Your task to perform on an android device: Set the phone to "Do not disturb". Image 0: 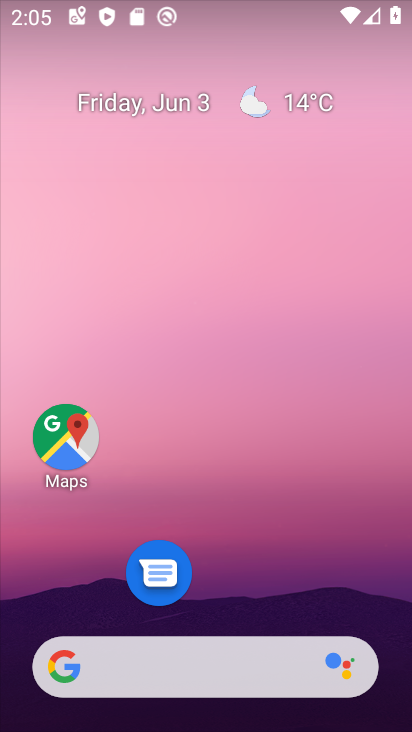
Step 0: drag from (184, 659) to (226, 86)
Your task to perform on an android device: Set the phone to "Do not disturb". Image 1: 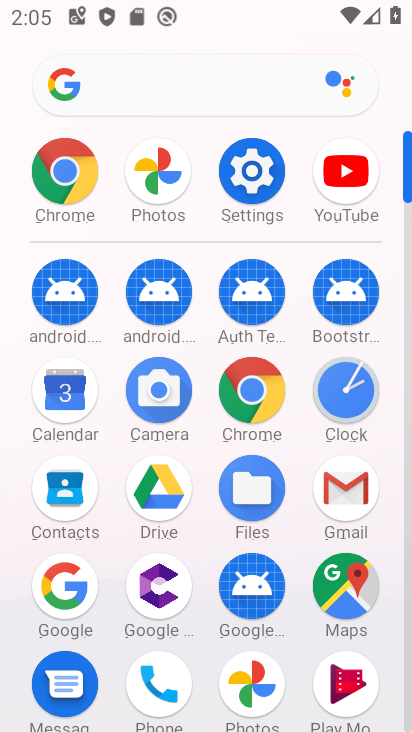
Step 1: click (239, 163)
Your task to perform on an android device: Set the phone to "Do not disturb". Image 2: 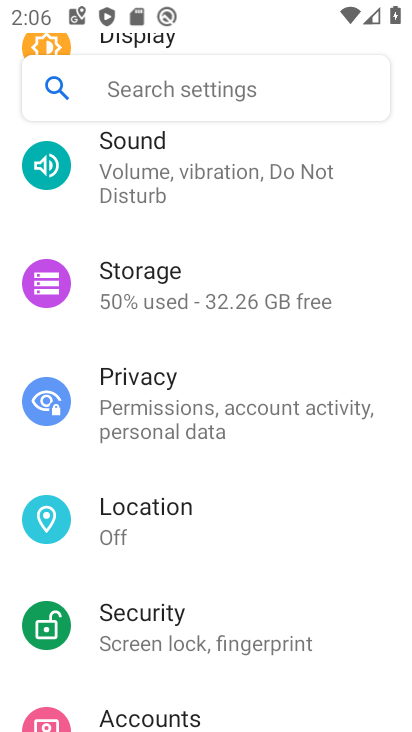
Step 2: click (178, 188)
Your task to perform on an android device: Set the phone to "Do not disturb". Image 3: 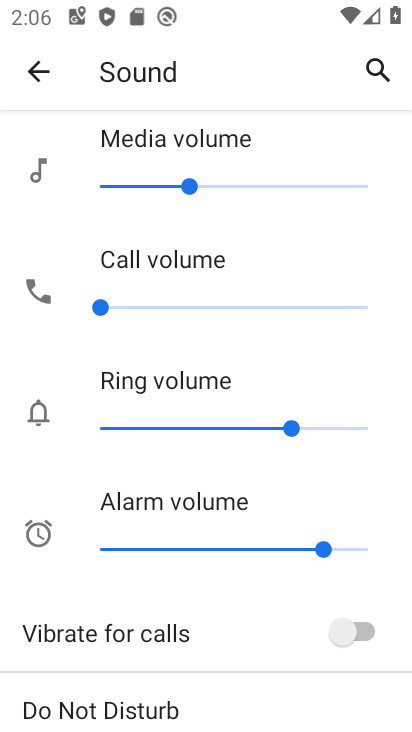
Step 3: drag from (144, 601) to (177, 232)
Your task to perform on an android device: Set the phone to "Do not disturb". Image 4: 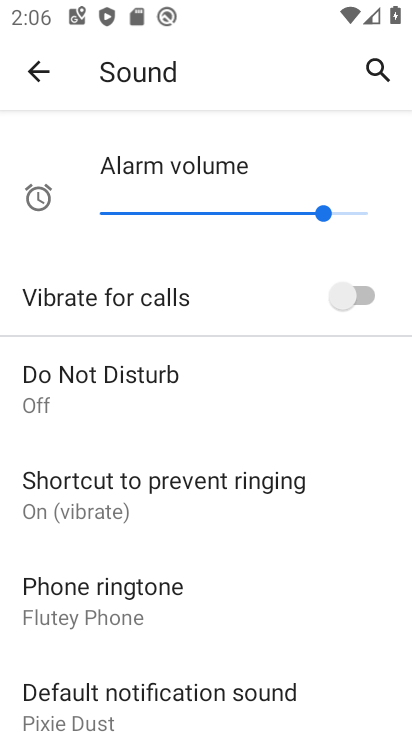
Step 4: click (154, 387)
Your task to perform on an android device: Set the phone to "Do not disturb". Image 5: 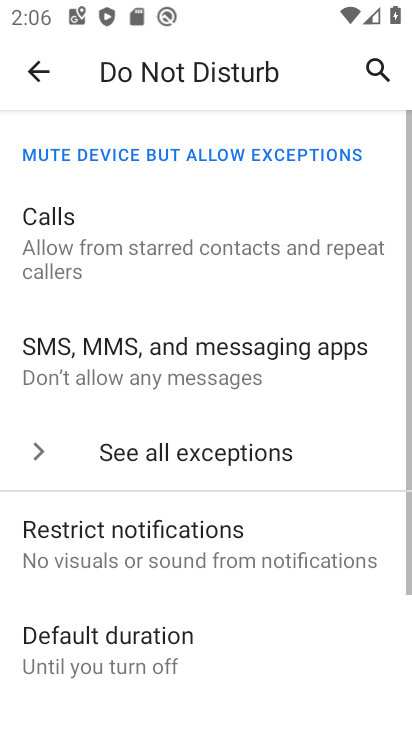
Step 5: drag from (213, 665) to (288, 46)
Your task to perform on an android device: Set the phone to "Do not disturb". Image 6: 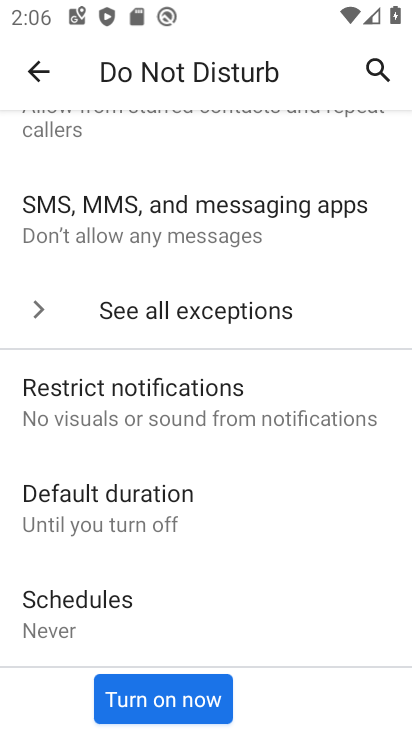
Step 6: click (172, 703)
Your task to perform on an android device: Set the phone to "Do not disturb". Image 7: 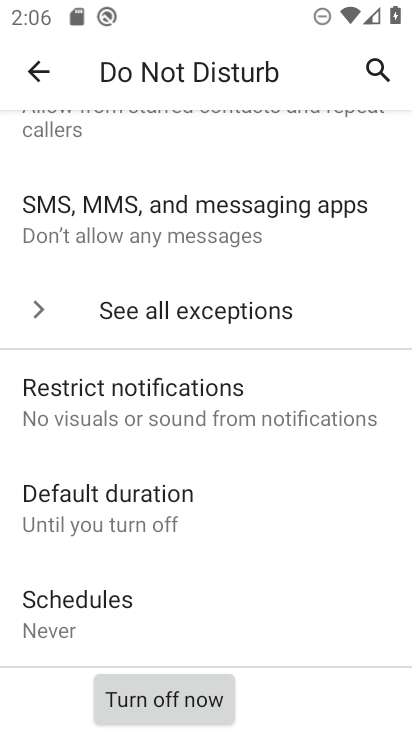
Step 7: task complete